Your task to perform on an android device: Open Google Maps Image 0: 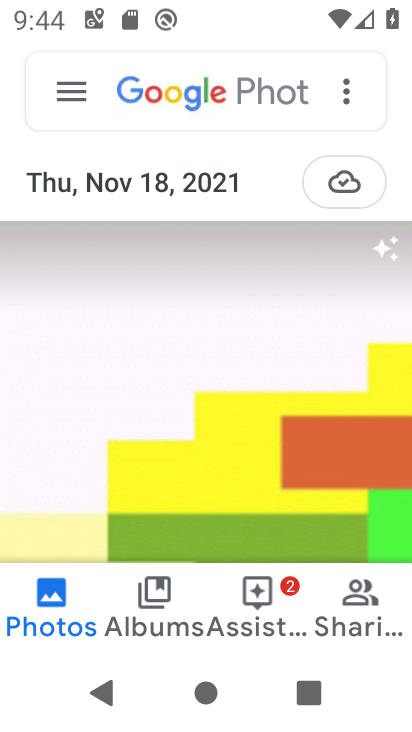
Step 0: press home button
Your task to perform on an android device: Open Google Maps Image 1: 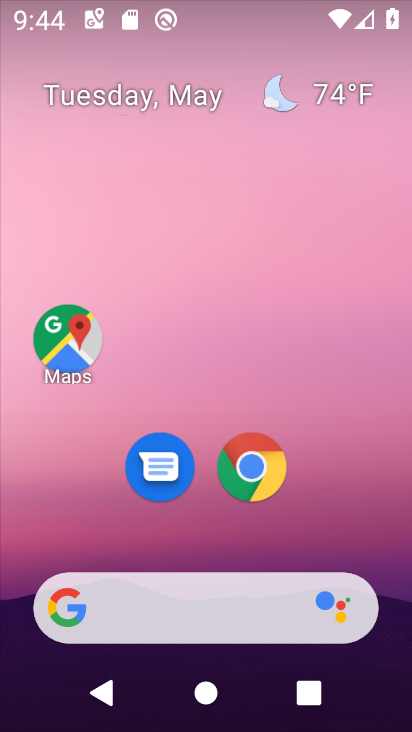
Step 1: drag from (303, 469) to (318, 136)
Your task to perform on an android device: Open Google Maps Image 2: 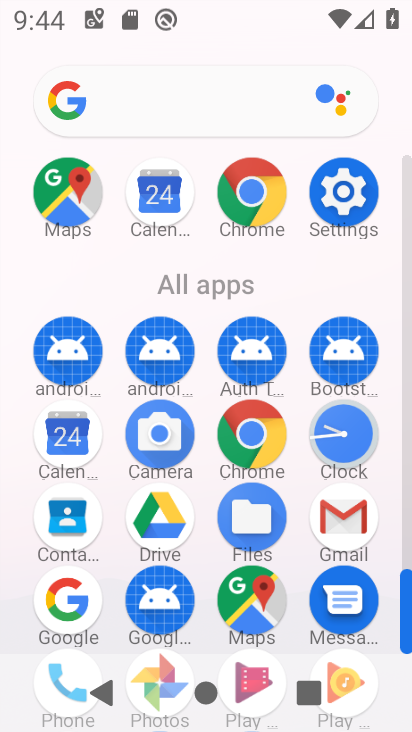
Step 2: click (70, 616)
Your task to perform on an android device: Open Google Maps Image 3: 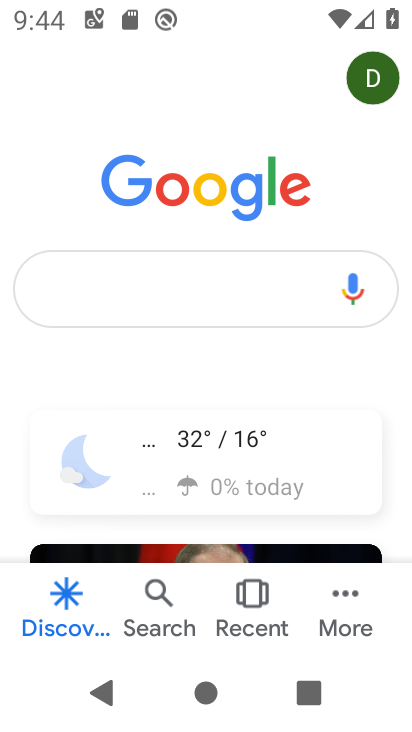
Step 3: press home button
Your task to perform on an android device: Open Google Maps Image 4: 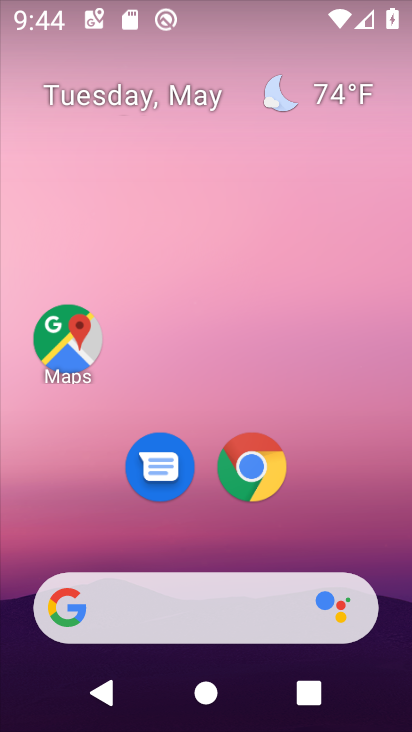
Step 4: drag from (330, 528) to (343, 149)
Your task to perform on an android device: Open Google Maps Image 5: 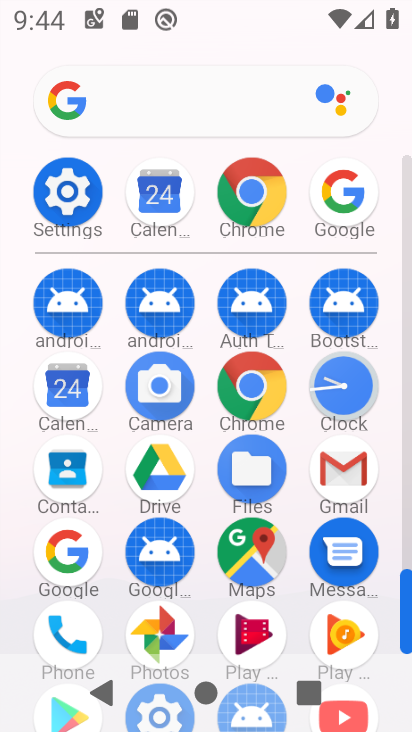
Step 5: click (267, 533)
Your task to perform on an android device: Open Google Maps Image 6: 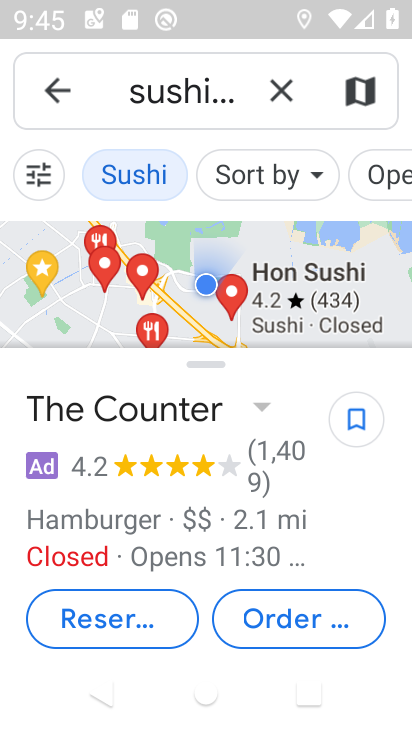
Step 6: task complete